Your task to perform on an android device: turn off airplane mode Image 0: 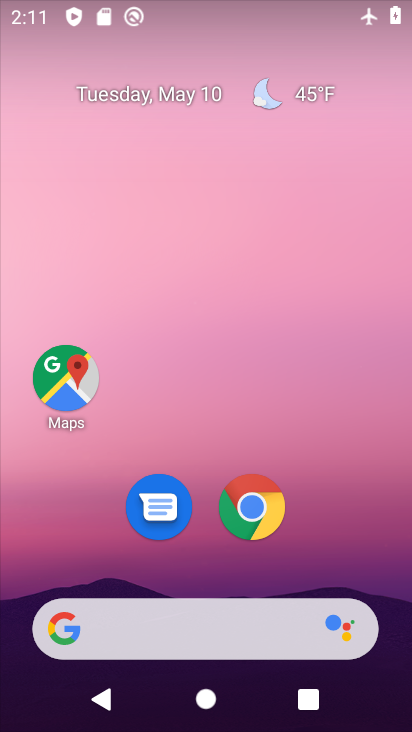
Step 0: drag from (355, 501) to (150, 149)
Your task to perform on an android device: turn off airplane mode Image 1: 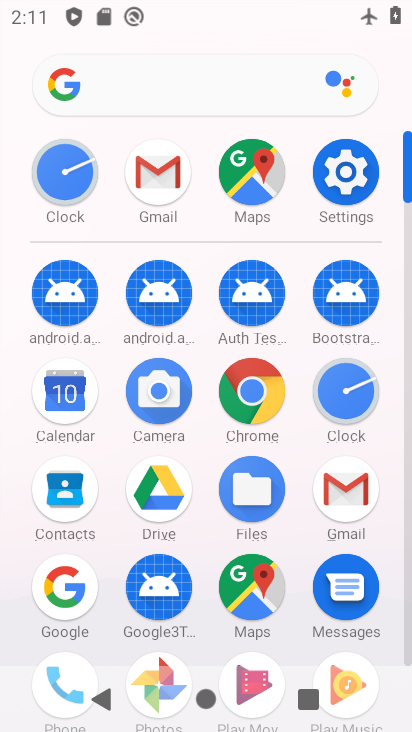
Step 1: click (341, 183)
Your task to perform on an android device: turn off airplane mode Image 2: 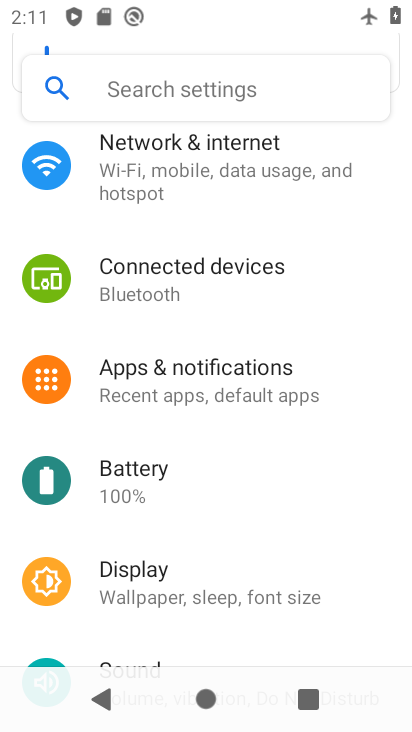
Step 2: click (240, 186)
Your task to perform on an android device: turn off airplane mode Image 3: 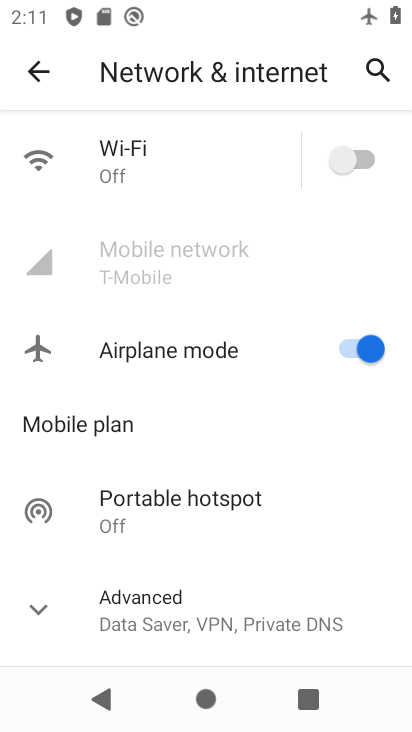
Step 3: click (362, 350)
Your task to perform on an android device: turn off airplane mode Image 4: 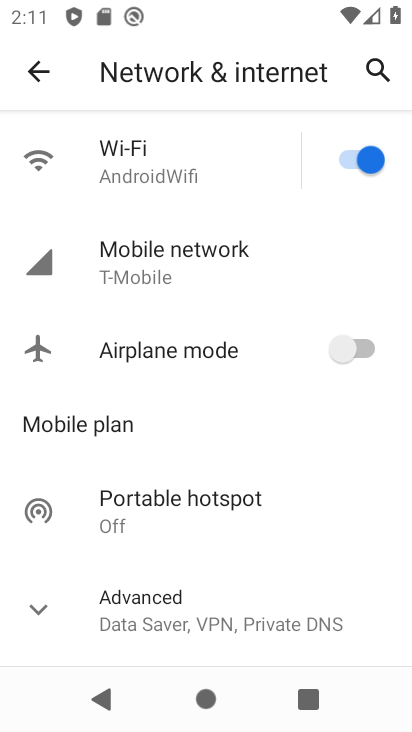
Step 4: task complete